Your task to perform on an android device: search for starred emails in the gmail app Image 0: 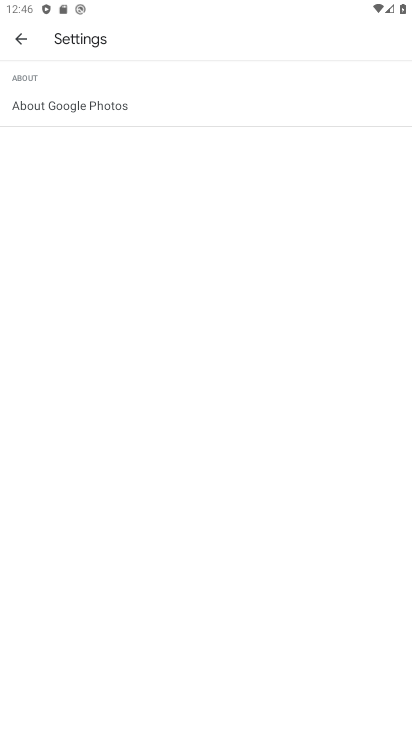
Step 0: press home button
Your task to perform on an android device: search for starred emails in the gmail app Image 1: 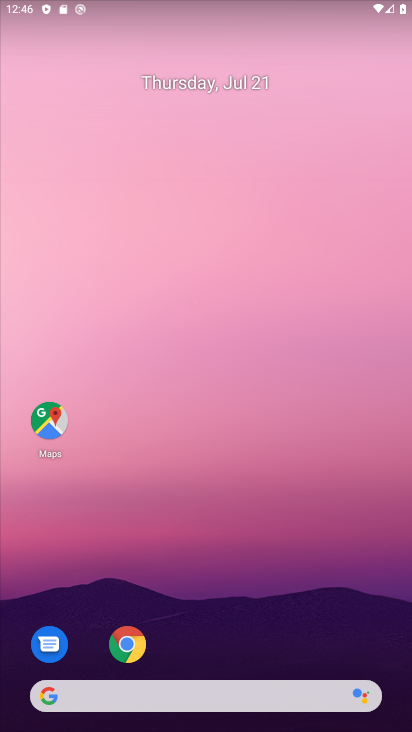
Step 1: drag from (193, 683) to (288, 16)
Your task to perform on an android device: search for starred emails in the gmail app Image 2: 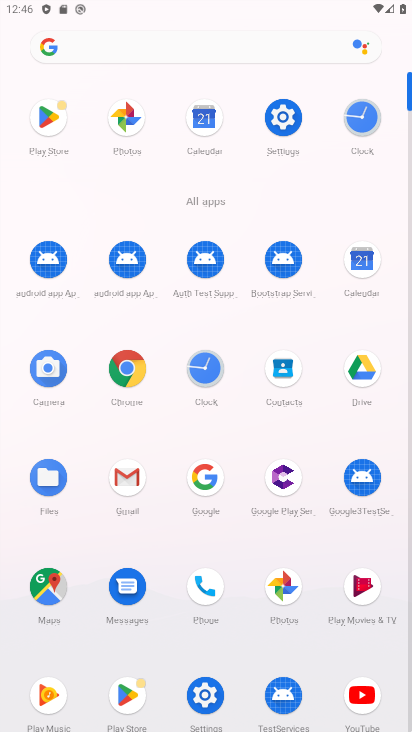
Step 2: click (133, 480)
Your task to perform on an android device: search for starred emails in the gmail app Image 3: 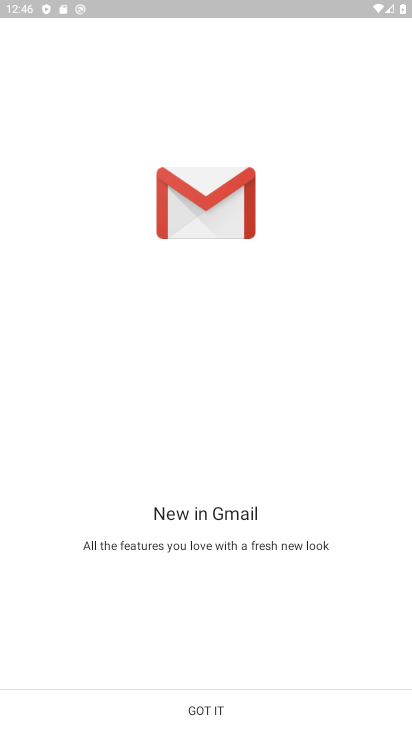
Step 3: click (222, 705)
Your task to perform on an android device: search for starred emails in the gmail app Image 4: 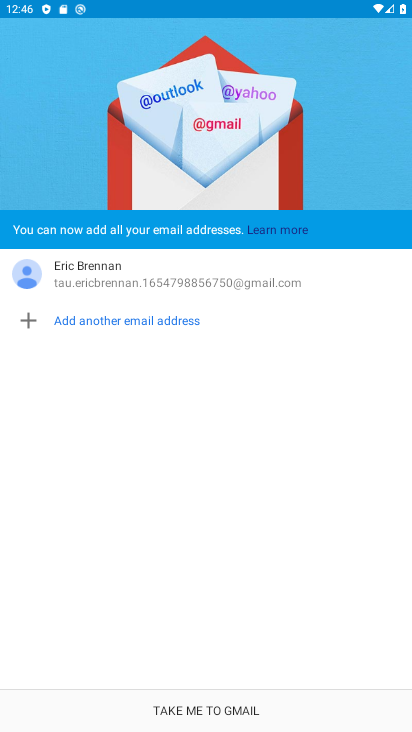
Step 4: click (224, 701)
Your task to perform on an android device: search for starred emails in the gmail app Image 5: 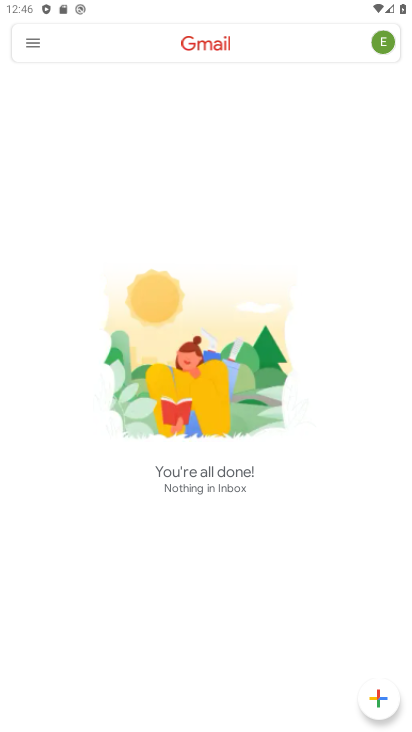
Step 5: click (32, 45)
Your task to perform on an android device: search for starred emails in the gmail app Image 6: 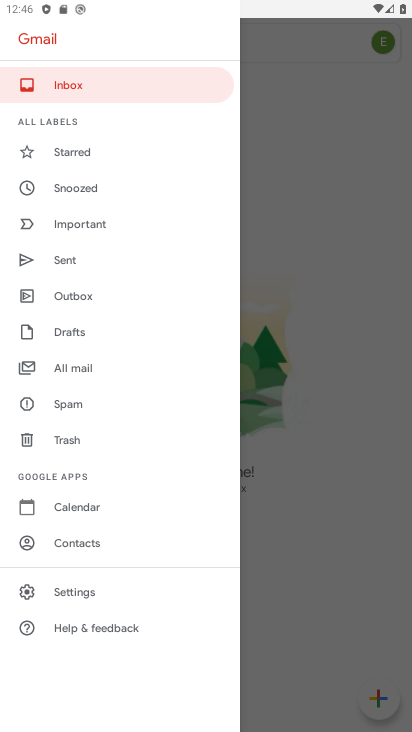
Step 6: click (60, 159)
Your task to perform on an android device: search for starred emails in the gmail app Image 7: 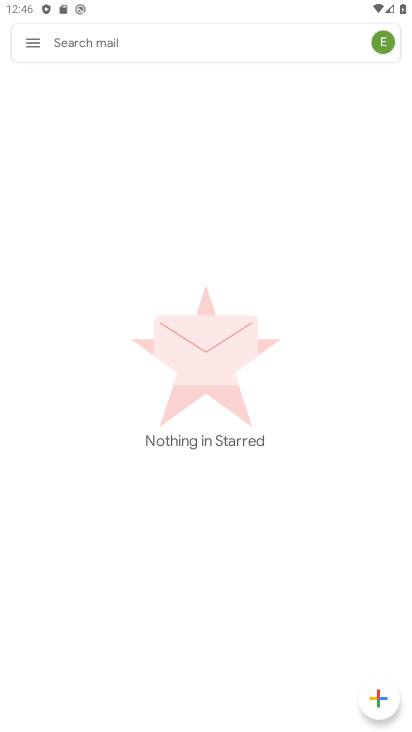
Step 7: task complete